Your task to perform on an android device: Open the phone app and click the voicemail tab. Image 0: 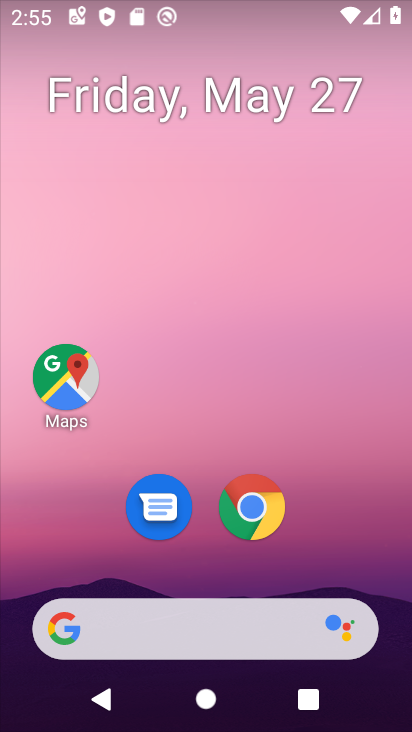
Step 0: press back button
Your task to perform on an android device: Open the phone app and click the voicemail tab. Image 1: 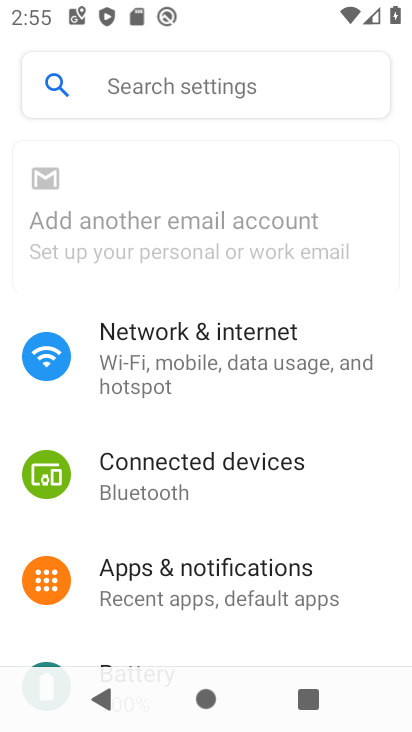
Step 1: press back button
Your task to perform on an android device: Open the phone app and click the voicemail tab. Image 2: 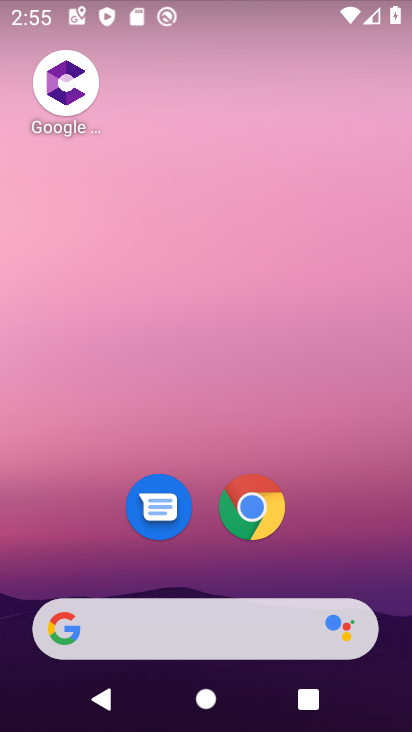
Step 2: drag from (193, 505) to (226, 46)
Your task to perform on an android device: Open the phone app and click the voicemail tab. Image 3: 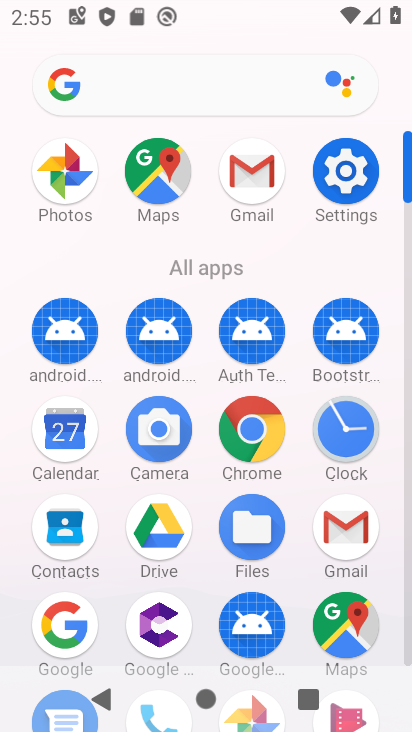
Step 3: drag from (217, 585) to (264, 165)
Your task to perform on an android device: Open the phone app and click the voicemail tab. Image 4: 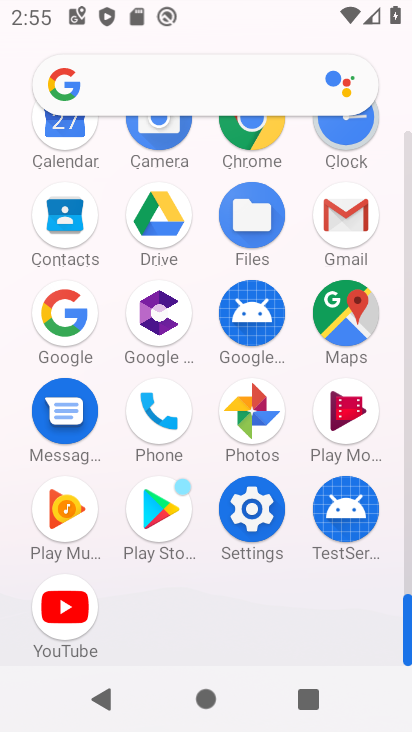
Step 4: click (158, 389)
Your task to perform on an android device: Open the phone app and click the voicemail tab. Image 5: 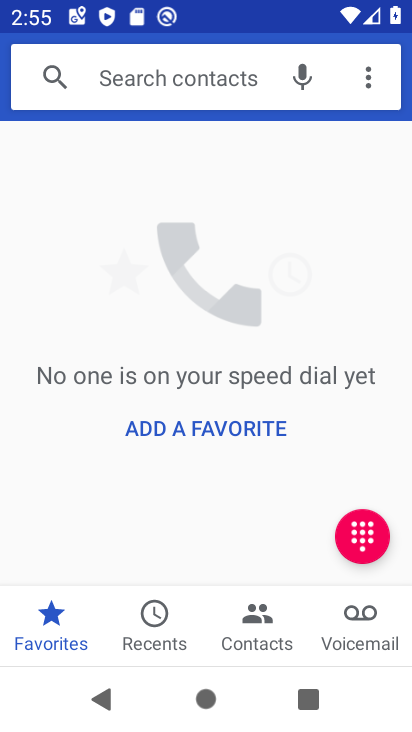
Step 5: click (350, 628)
Your task to perform on an android device: Open the phone app and click the voicemail tab. Image 6: 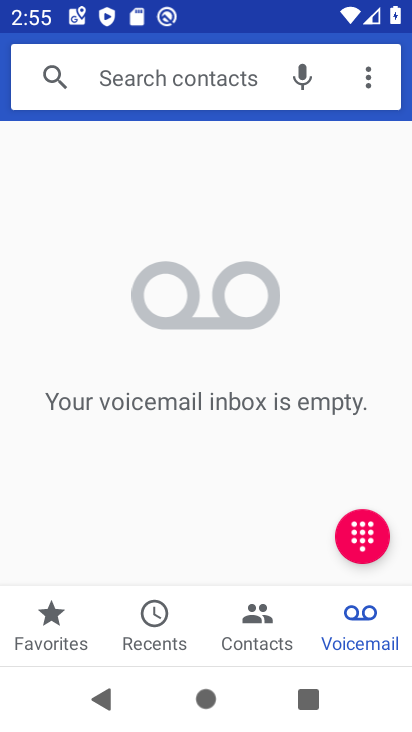
Step 6: task complete